Your task to perform on an android device: Go to wifi settings Image 0: 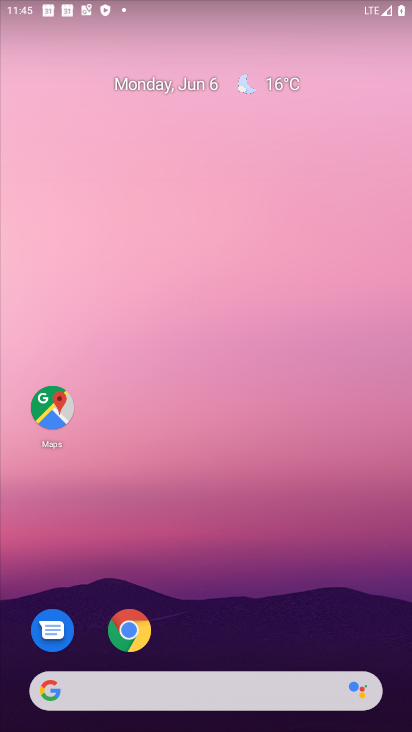
Step 0: drag from (64, 10) to (153, 534)
Your task to perform on an android device: Go to wifi settings Image 1: 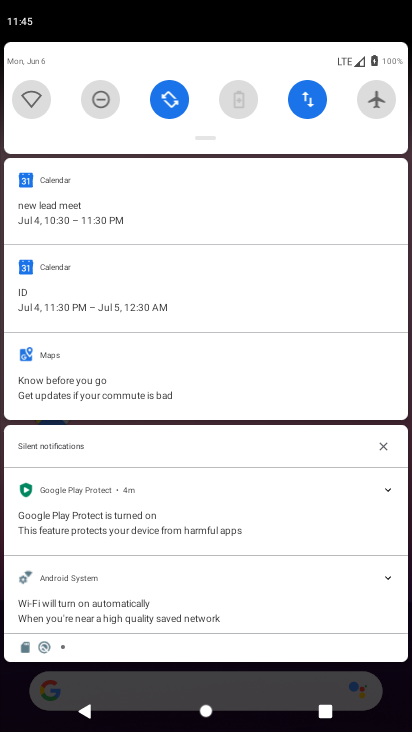
Step 1: click (29, 98)
Your task to perform on an android device: Go to wifi settings Image 2: 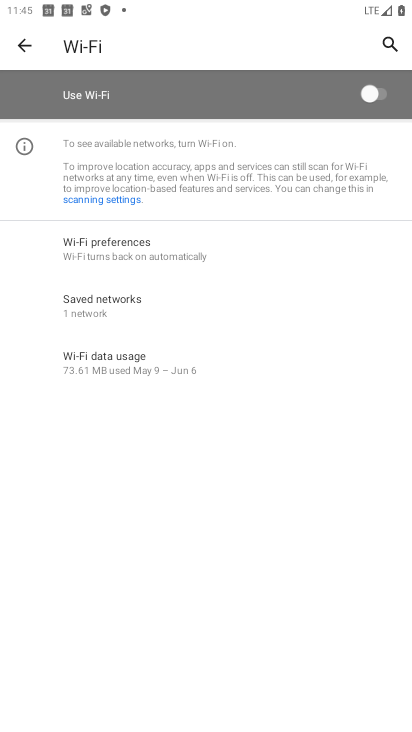
Step 2: task complete